Your task to perform on an android device: toggle show notifications on the lock screen Image 0: 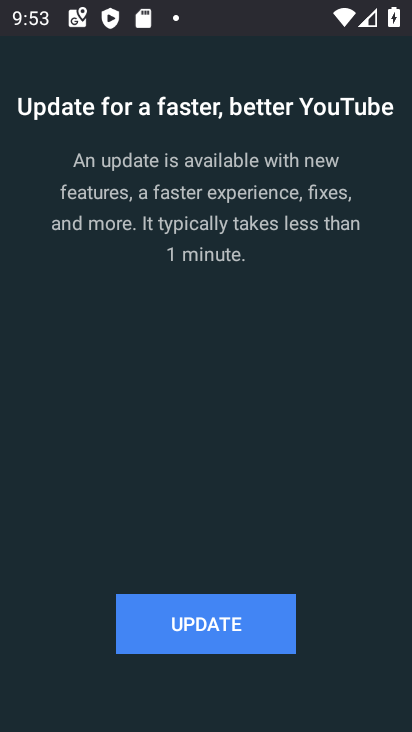
Step 0: press home button
Your task to perform on an android device: toggle show notifications on the lock screen Image 1: 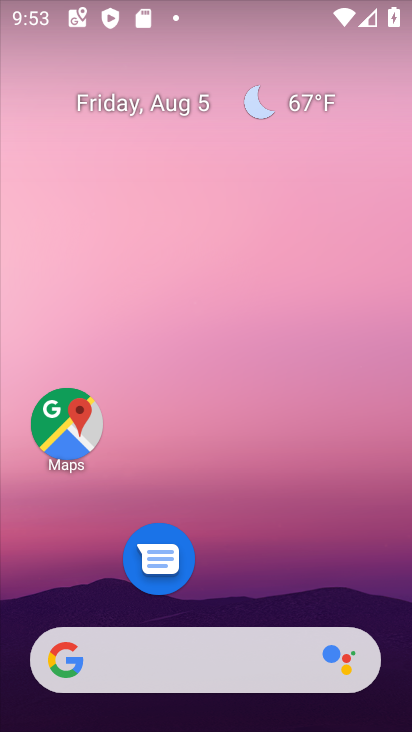
Step 1: drag from (222, 593) to (226, 59)
Your task to perform on an android device: toggle show notifications on the lock screen Image 2: 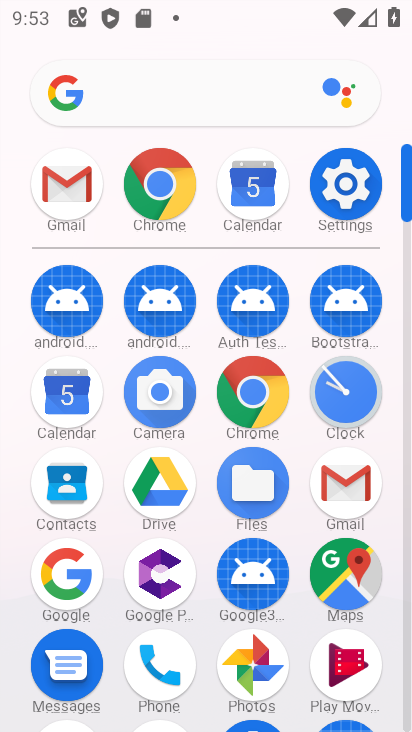
Step 2: click (333, 179)
Your task to perform on an android device: toggle show notifications on the lock screen Image 3: 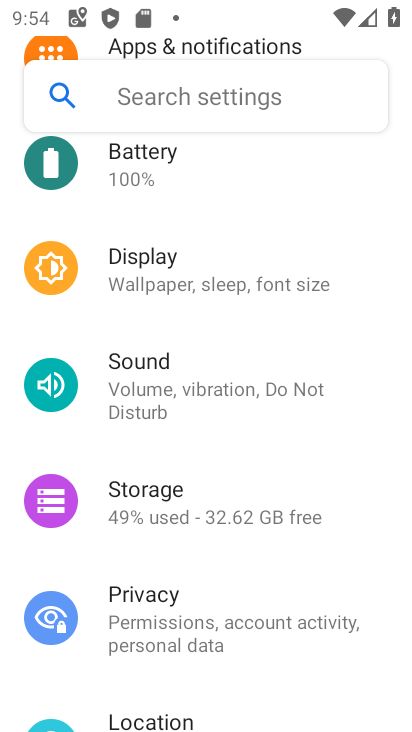
Step 3: drag from (204, 534) to (226, 197)
Your task to perform on an android device: toggle show notifications on the lock screen Image 4: 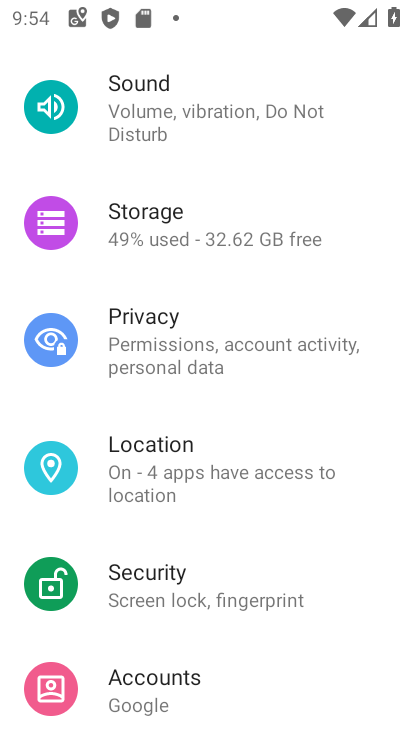
Step 4: drag from (259, 354) to (257, 685)
Your task to perform on an android device: toggle show notifications on the lock screen Image 5: 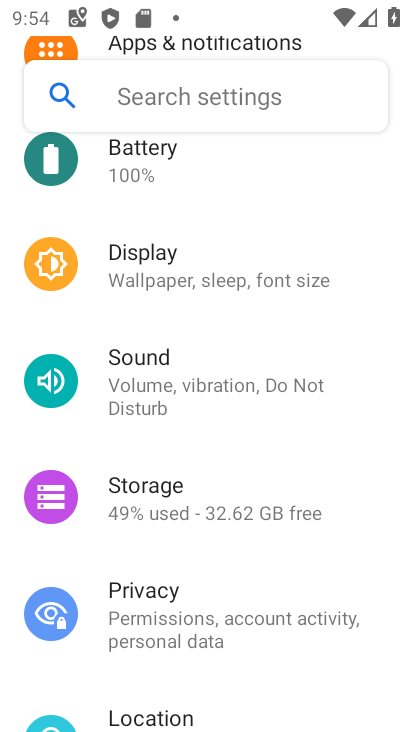
Step 5: drag from (245, 414) to (245, 668)
Your task to perform on an android device: toggle show notifications on the lock screen Image 6: 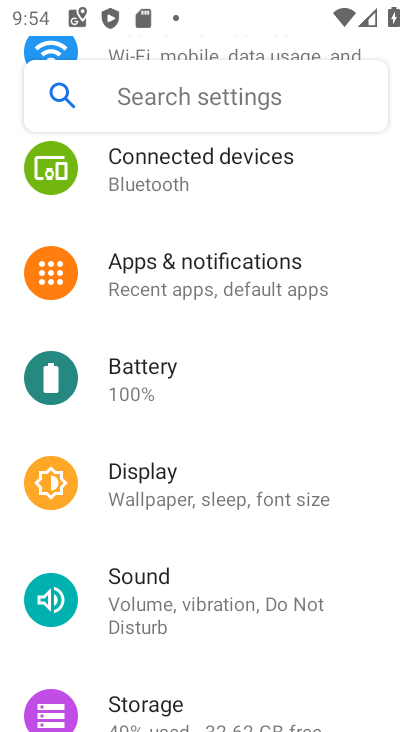
Step 6: click (267, 277)
Your task to perform on an android device: toggle show notifications on the lock screen Image 7: 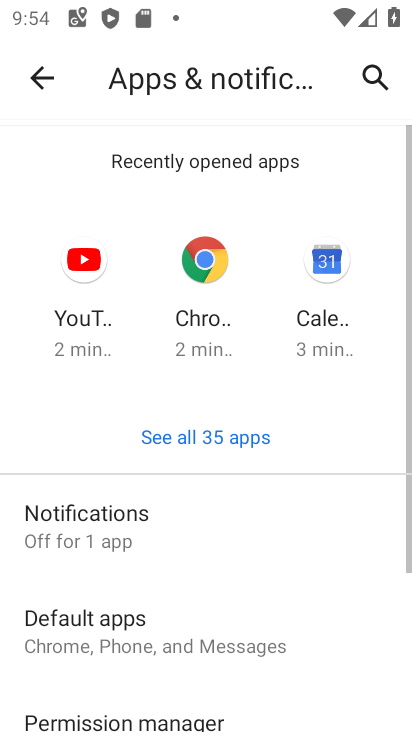
Step 7: drag from (200, 607) to (217, 349)
Your task to perform on an android device: toggle show notifications on the lock screen Image 8: 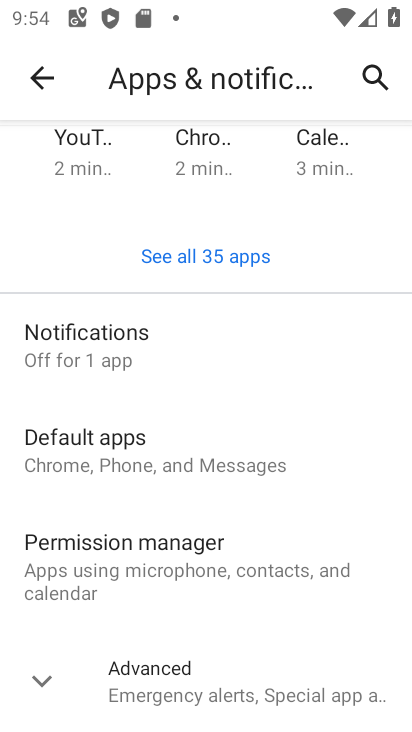
Step 8: click (136, 351)
Your task to perform on an android device: toggle show notifications on the lock screen Image 9: 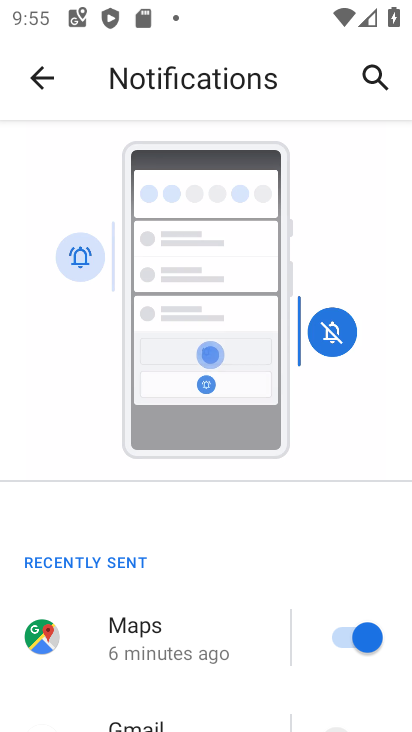
Step 9: drag from (235, 574) to (232, 193)
Your task to perform on an android device: toggle show notifications on the lock screen Image 10: 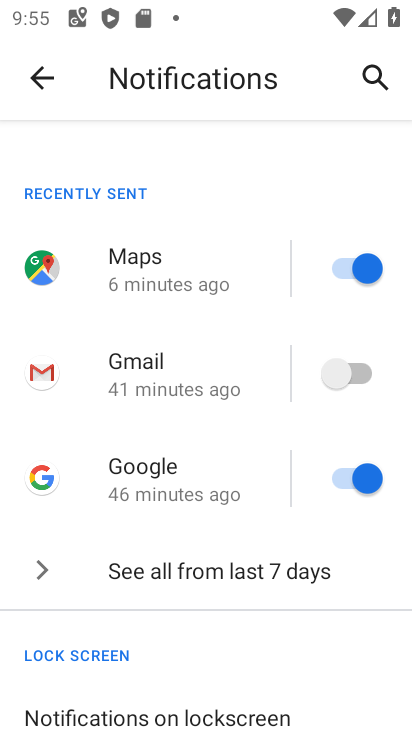
Step 10: click (181, 707)
Your task to perform on an android device: toggle show notifications on the lock screen Image 11: 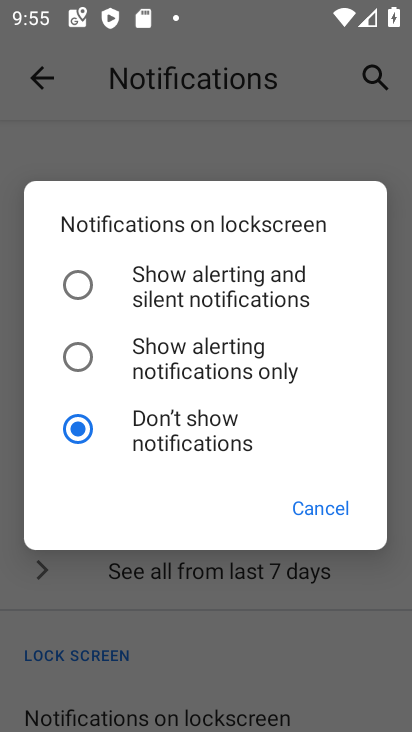
Step 11: click (83, 286)
Your task to perform on an android device: toggle show notifications on the lock screen Image 12: 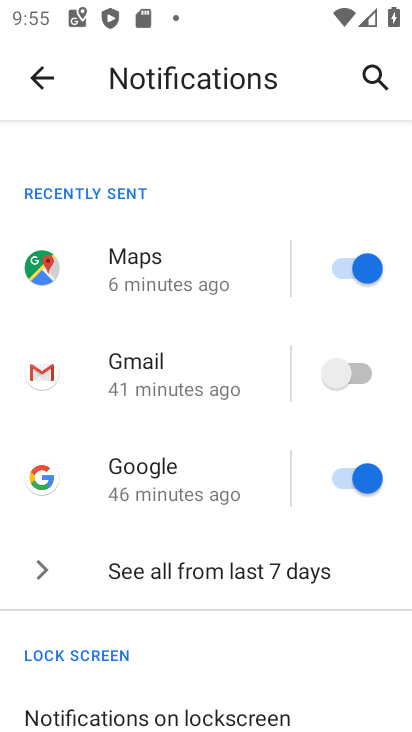
Step 12: task complete